Your task to perform on an android device: change text size in settings app Image 0: 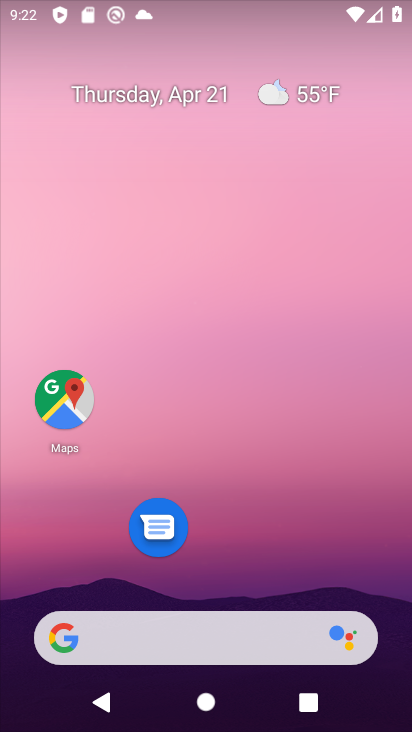
Step 0: drag from (192, 593) to (189, 55)
Your task to perform on an android device: change text size in settings app Image 1: 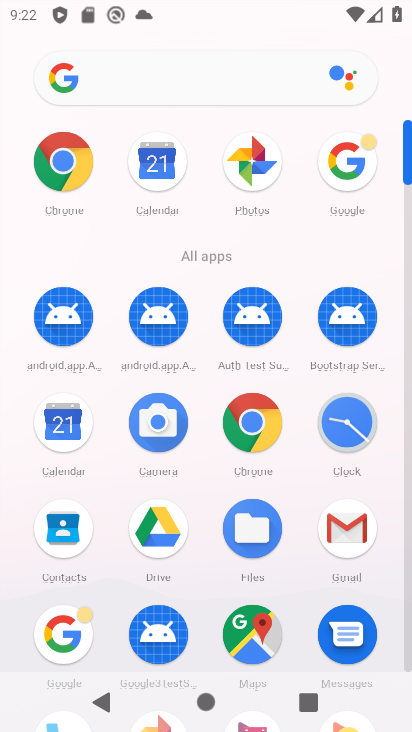
Step 1: drag from (196, 594) to (236, 193)
Your task to perform on an android device: change text size in settings app Image 2: 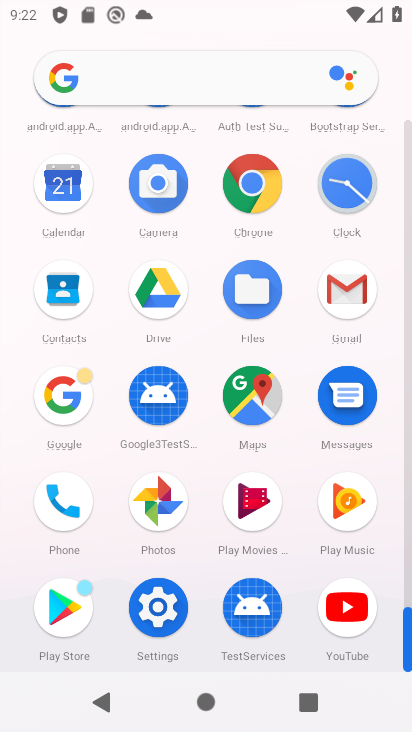
Step 2: click (170, 581)
Your task to perform on an android device: change text size in settings app Image 3: 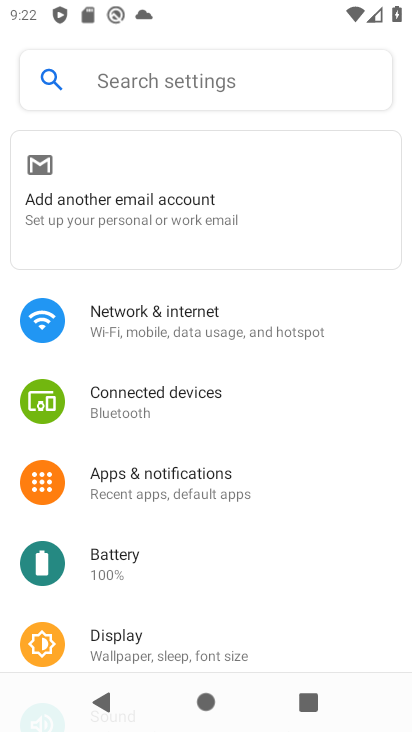
Step 3: click (178, 635)
Your task to perform on an android device: change text size in settings app Image 4: 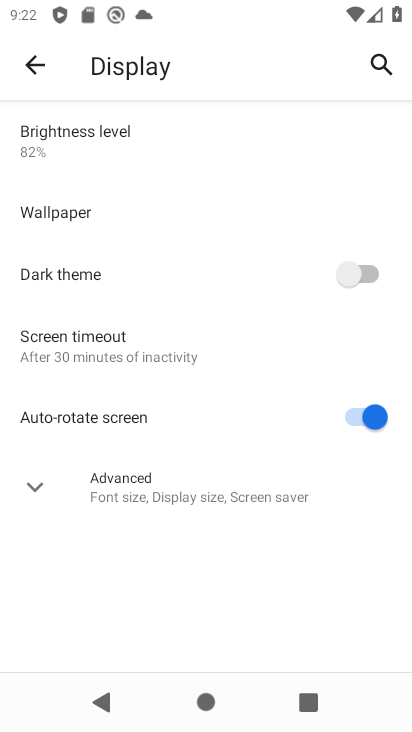
Step 4: drag from (206, 591) to (235, 275)
Your task to perform on an android device: change text size in settings app Image 5: 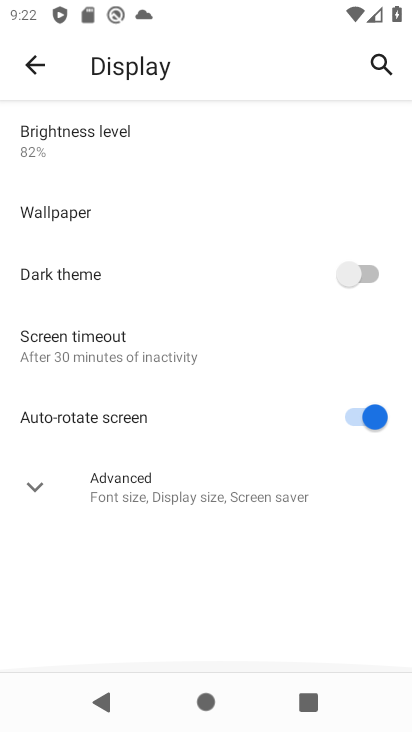
Step 5: click (122, 492)
Your task to perform on an android device: change text size in settings app Image 6: 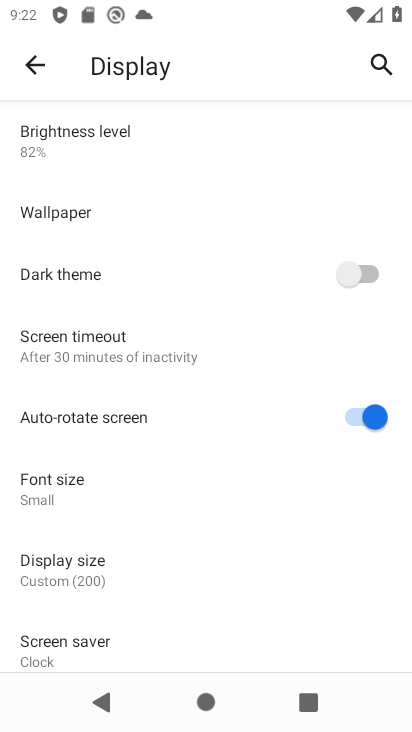
Step 6: click (122, 492)
Your task to perform on an android device: change text size in settings app Image 7: 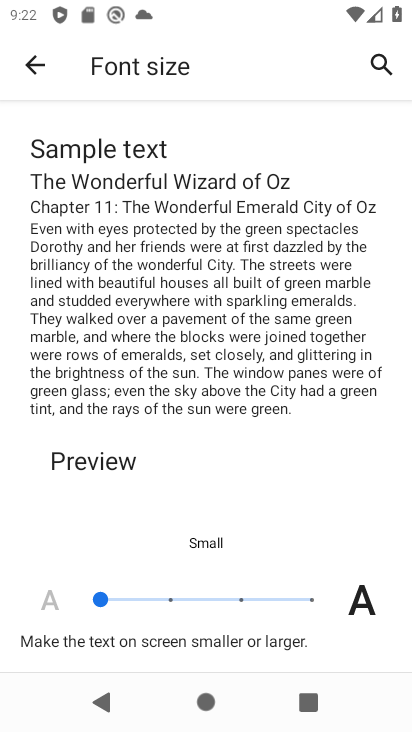
Step 7: click (164, 596)
Your task to perform on an android device: change text size in settings app Image 8: 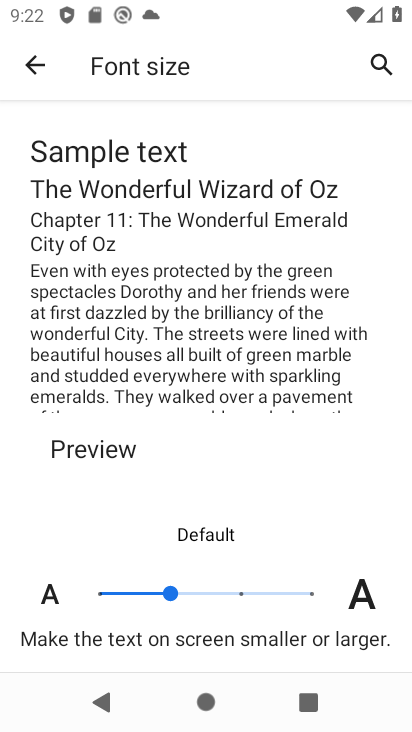
Step 8: task complete